Your task to perform on an android device: toggle javascript in the chrome app Image 0: 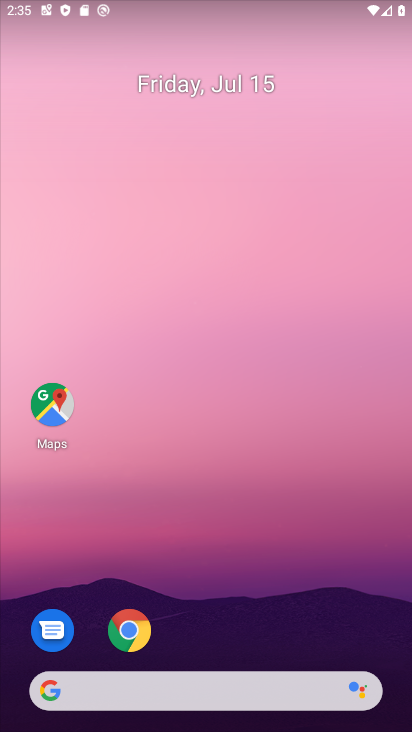
Step 0: click (137, 631)
Your task to perform on an android device: toggle javascript in the chrome app Image 1: 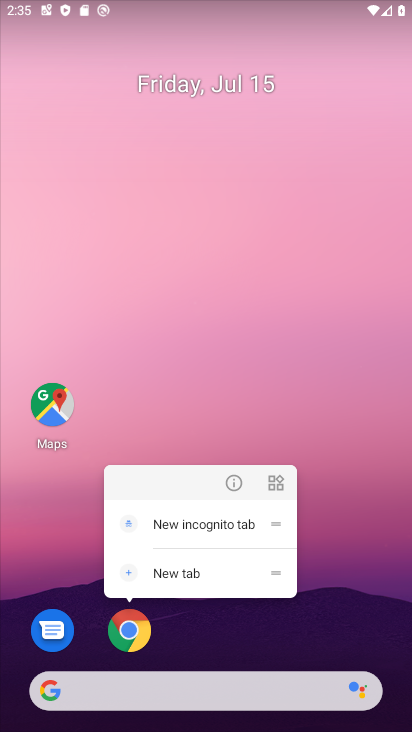
Step 1: click (132, 637)
Your task to perform on an android device: toggle javascript in the chrome app Image 2: 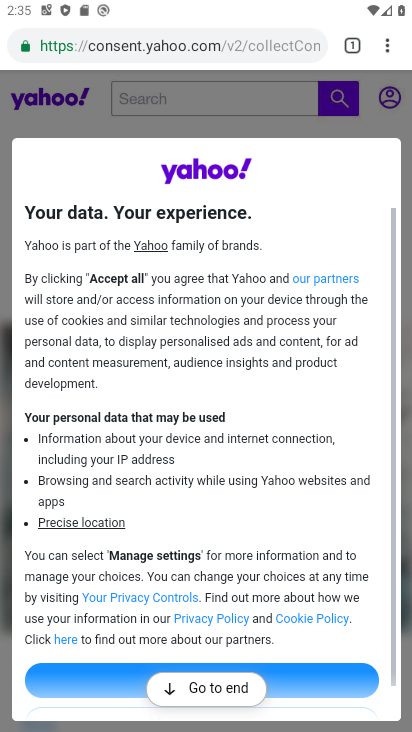
Step 2: click (391, 43)
Your task to perform on an android device: toggle javascript in the chrome app Image 3: 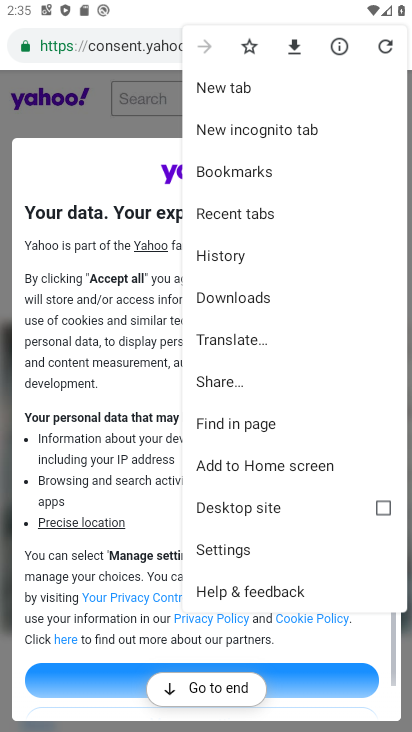
Step 3: click (239, 554)
Your task to perform on an android device: toggle javascript in the chrome app Image 4: 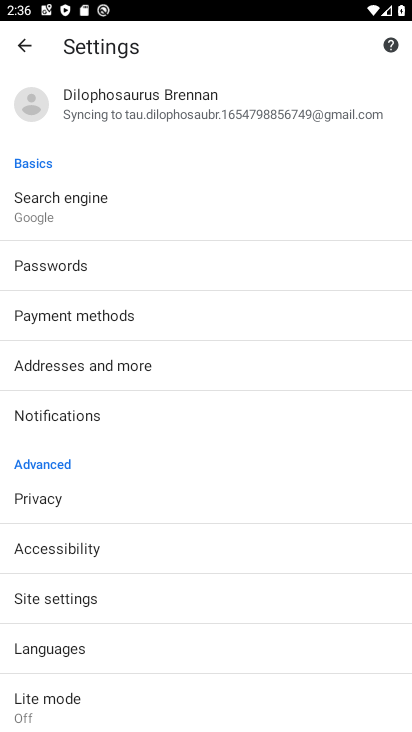
Step 4: click (67, 601)
Your task to perform on an android device: toggle javascript in the chrome app Image 5: 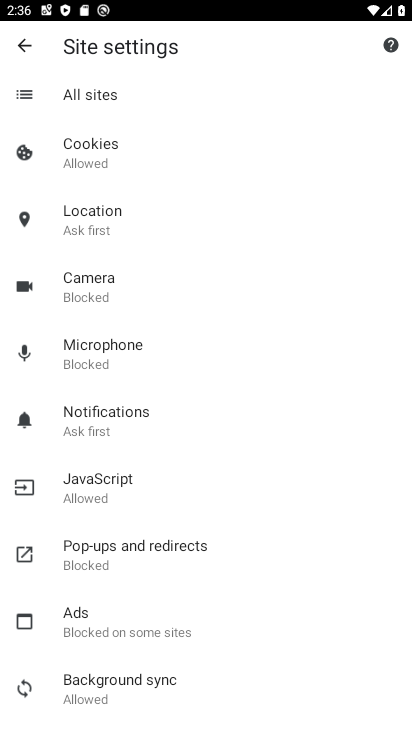
Step 5: click (109, 492)
Your task to perform on an android device: toggle javascript in the chrome app Image 6: 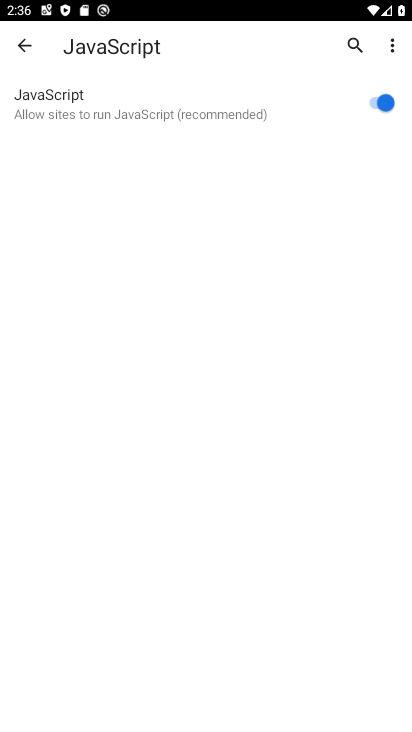
Step 6: click (363, 104)
Your task to perform on an android device: toggle javascript in the chrome app Image 7: 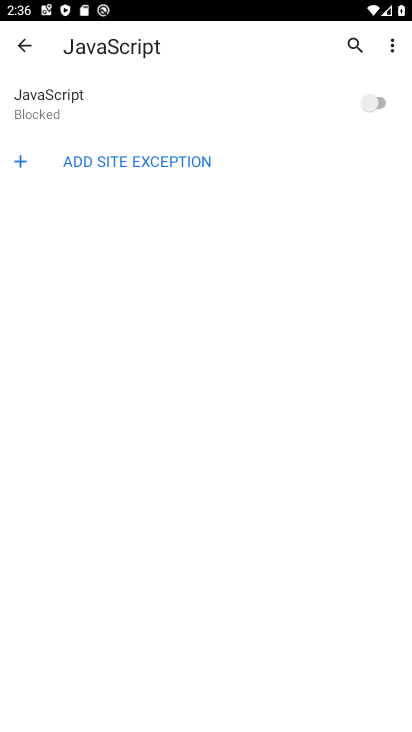
Step 7: task complete